Your task to perform on an android device: Go to accessibility settings Image 0: 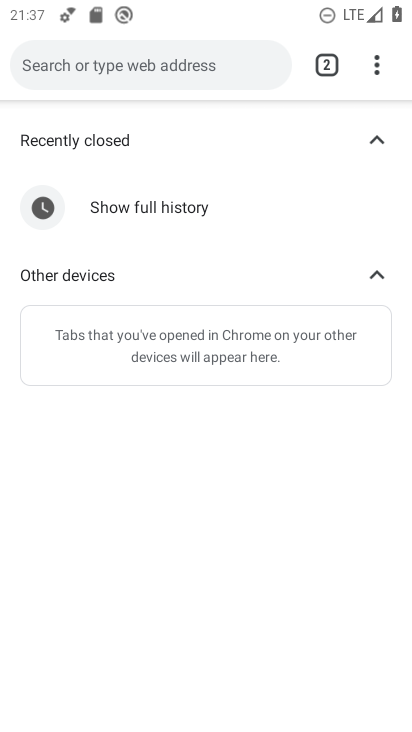
Step 0: press home button
Your task to perform on an android device: Go to accessibility settings Image 1: 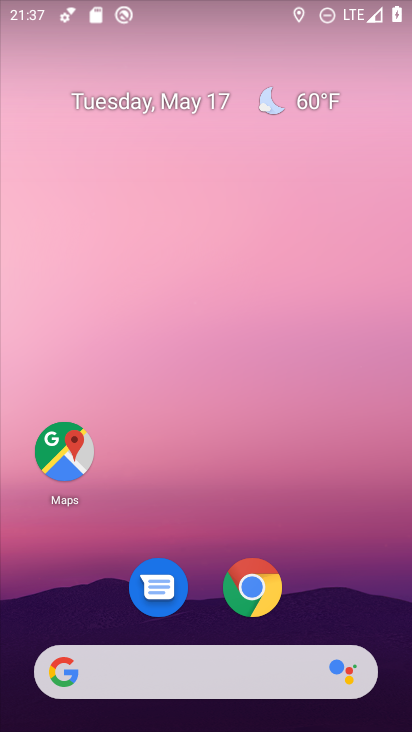
Step 1: drag from (291, 451) to (117, 128)
Your task to perform on an android device: Go to accessibility settings Image 2: 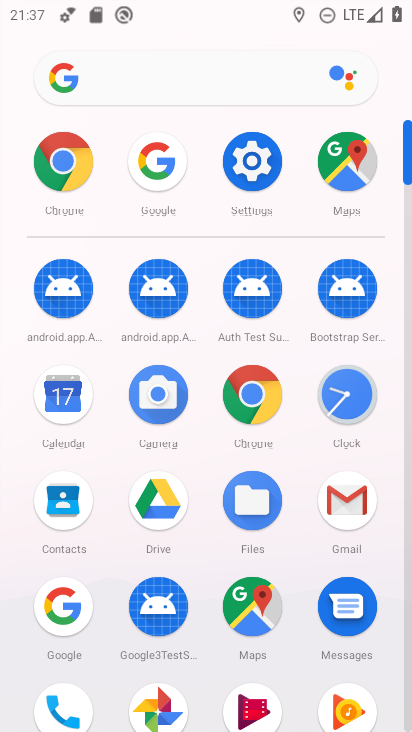
Step 2: click (234, 187)
Your task to perform on an android device: Go to accessibility settings Image 3: 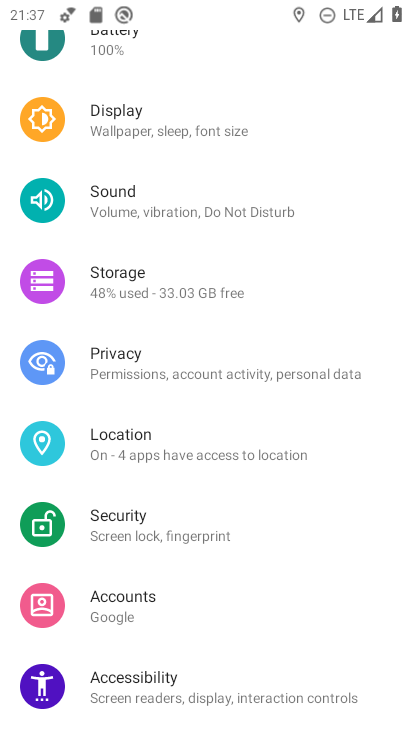
Step 3: drag from (282, 583) to (214, 387)
Your task to perform on an android device: Go to accessibility settings Image 4: 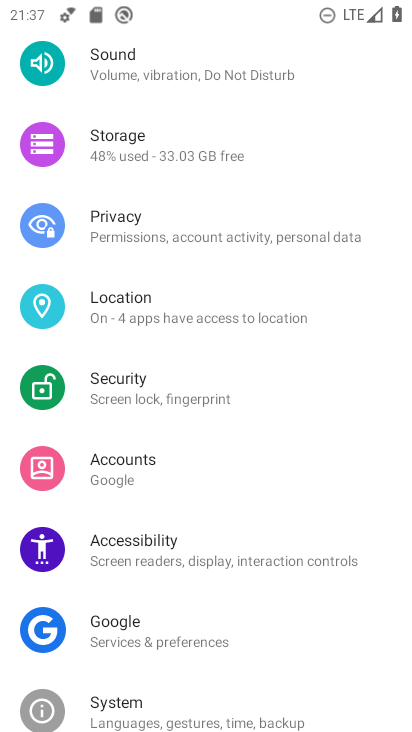
Step 4: click (182, 549)
Your task to perform on an android device: Go to accessibility settings Image 5: 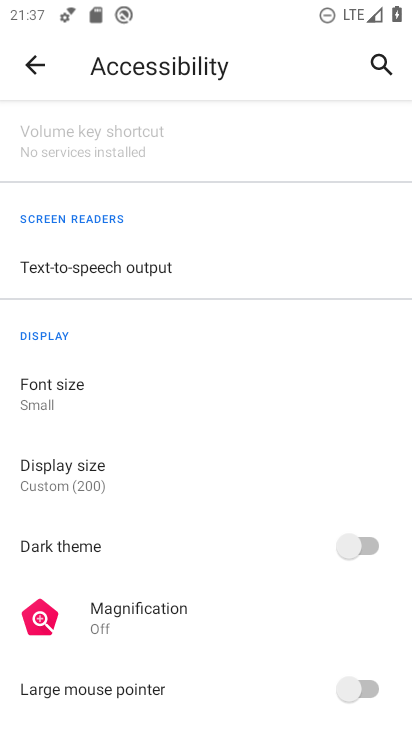
Step 5: task complete